Your task to perform on an android device: Open calendar and show me the third week of next month Image 0: 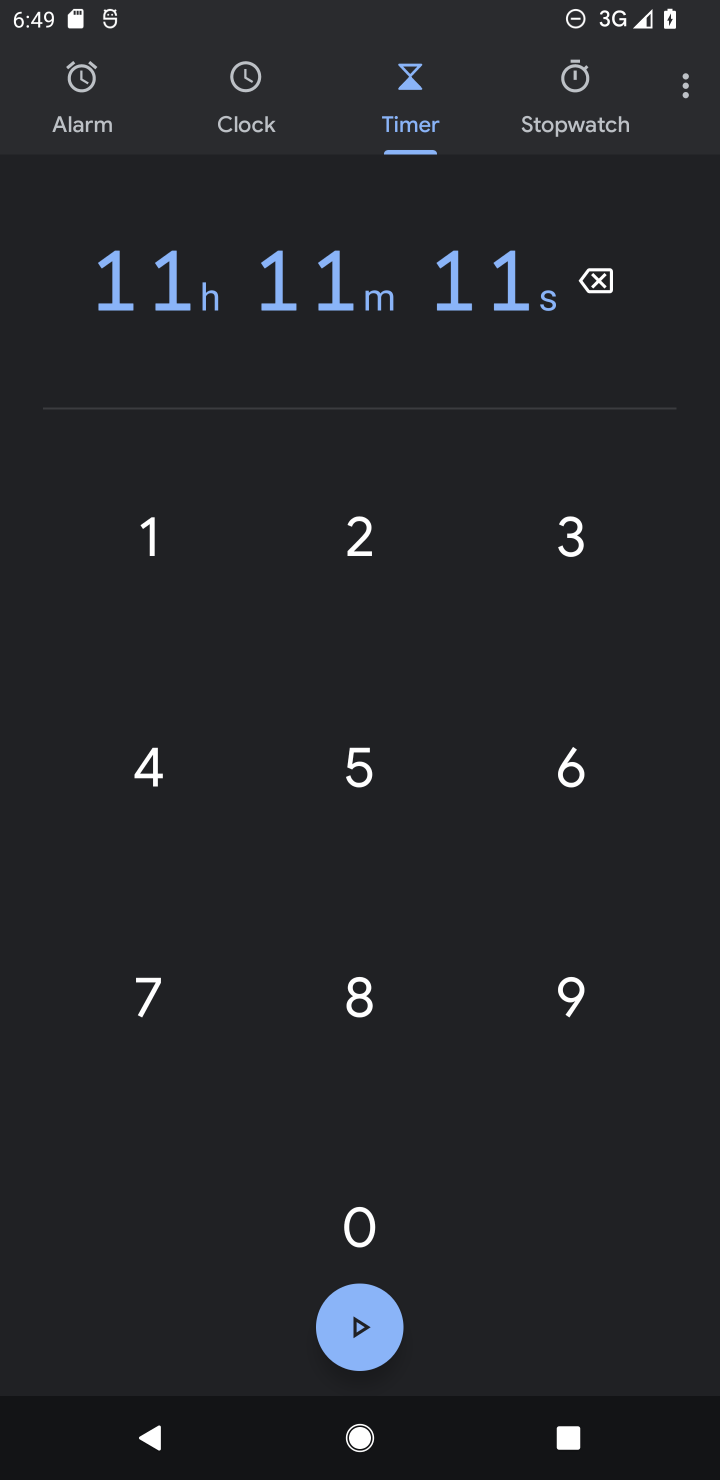
Step 0: press home button
Your task to perform on an android device: Open calendar and show me the third week of next month Image 1: 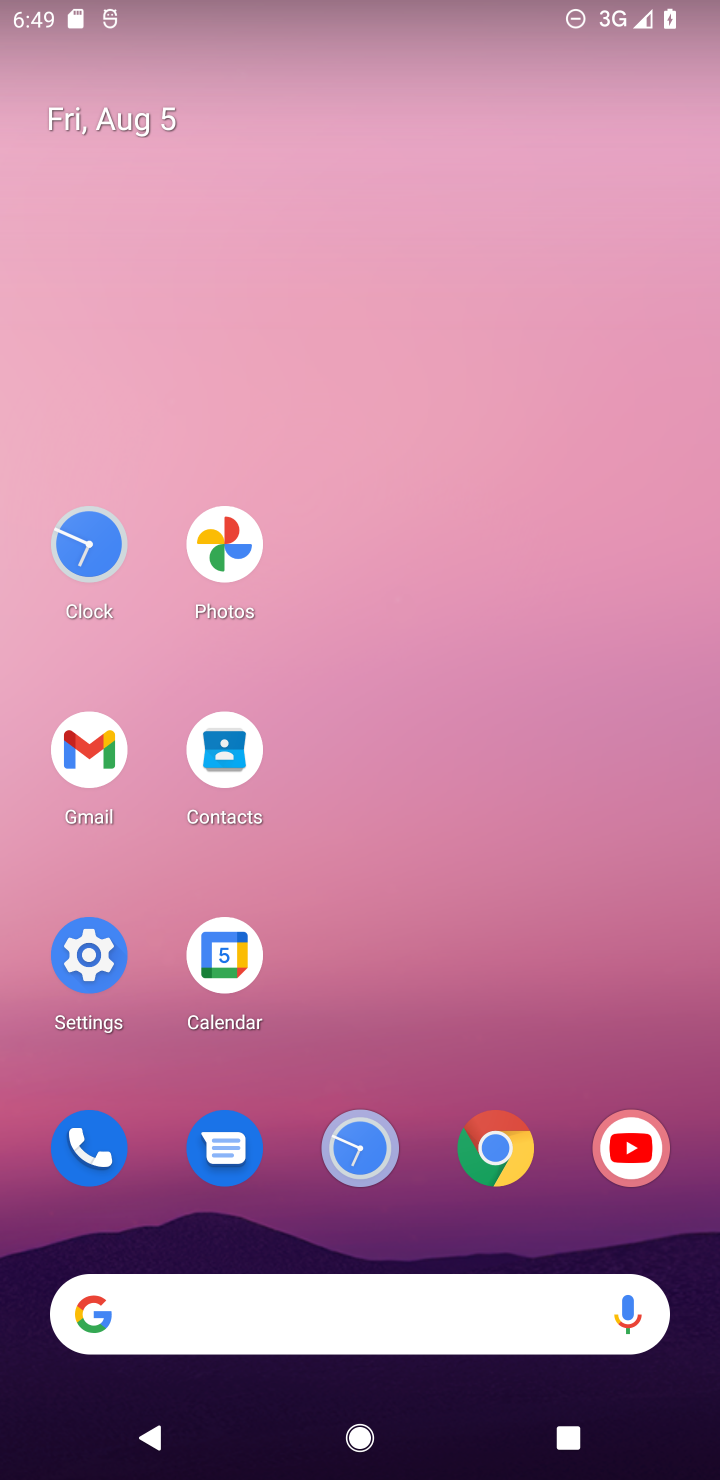
Step 1: click (220, 950)
Your task to perform on an android device: Open calendar and show me the third week of next month Image 2: 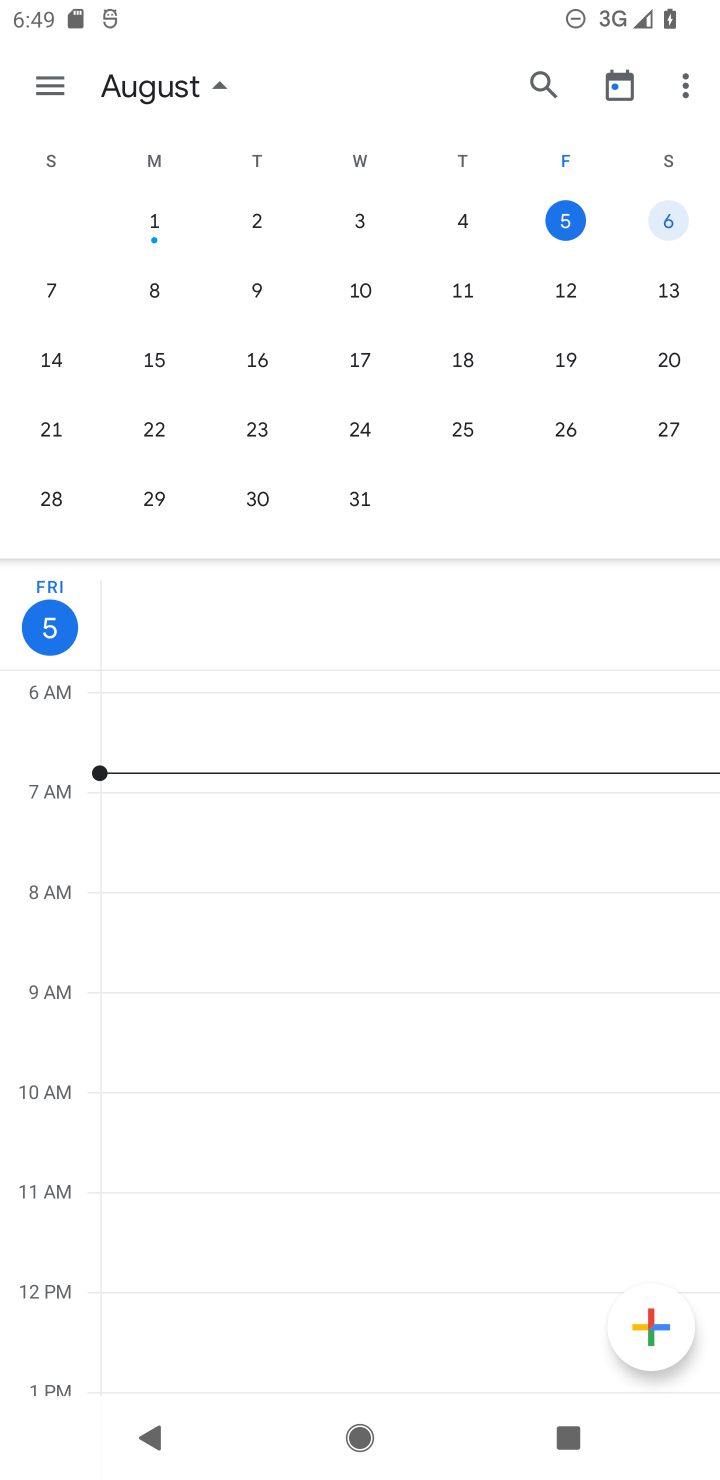
Step 2: drag from (642, 317) to (73, 312)
Your task to perform on an android device: Open calendar and show me the third week of next month Image 3: 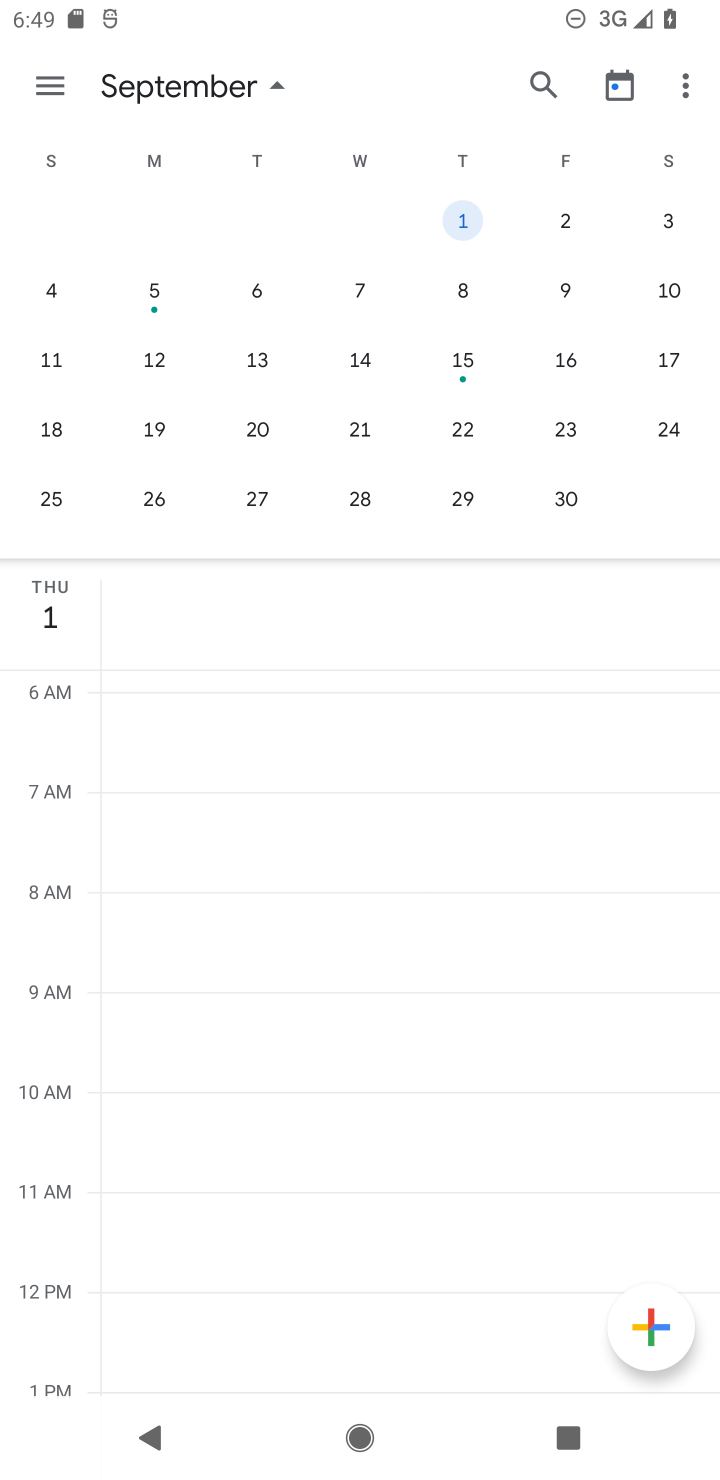
Step 3: click (367, 352)
Your task to perform on an android device: Open calendar and show me the third week of next month Image 4: 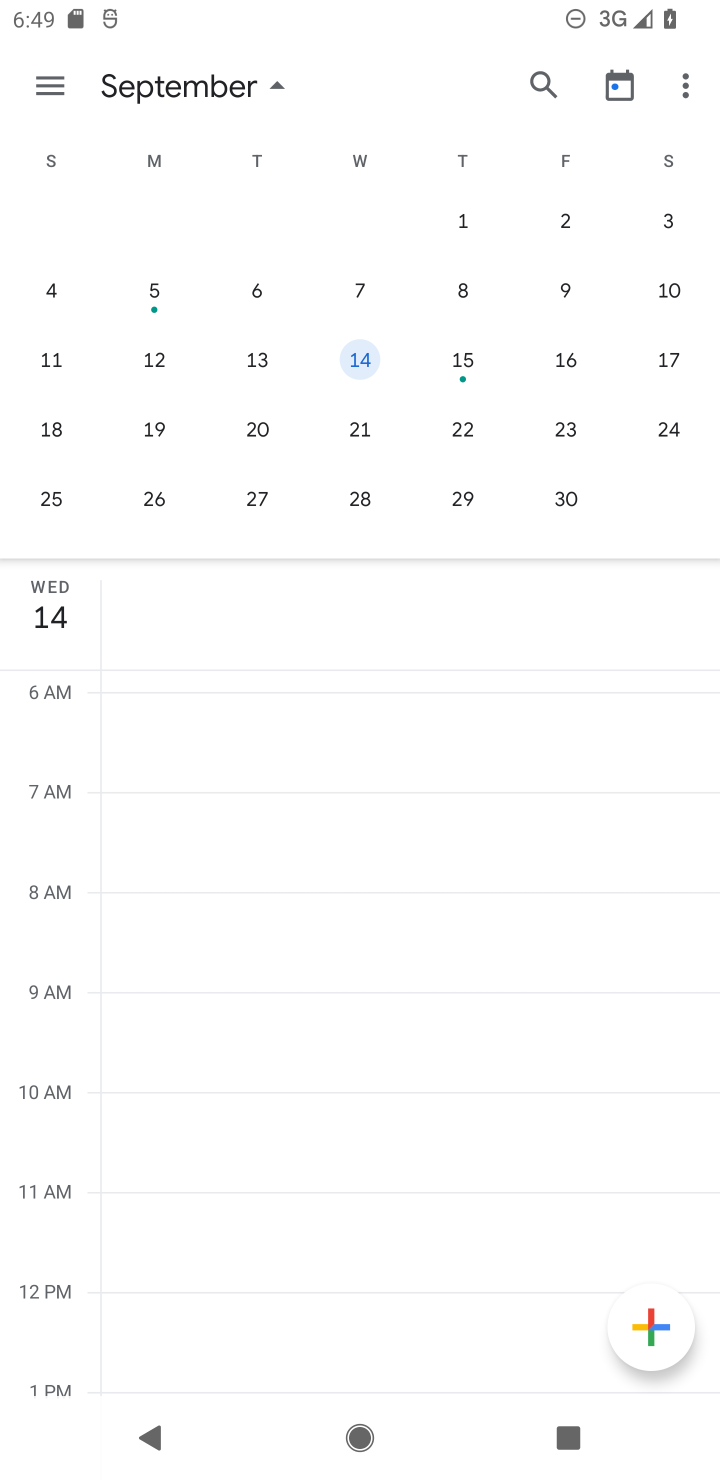
Step 4: click (358, 369)
Your task to perform on an android device: Open calendar and show me the third week of next month Image 5: 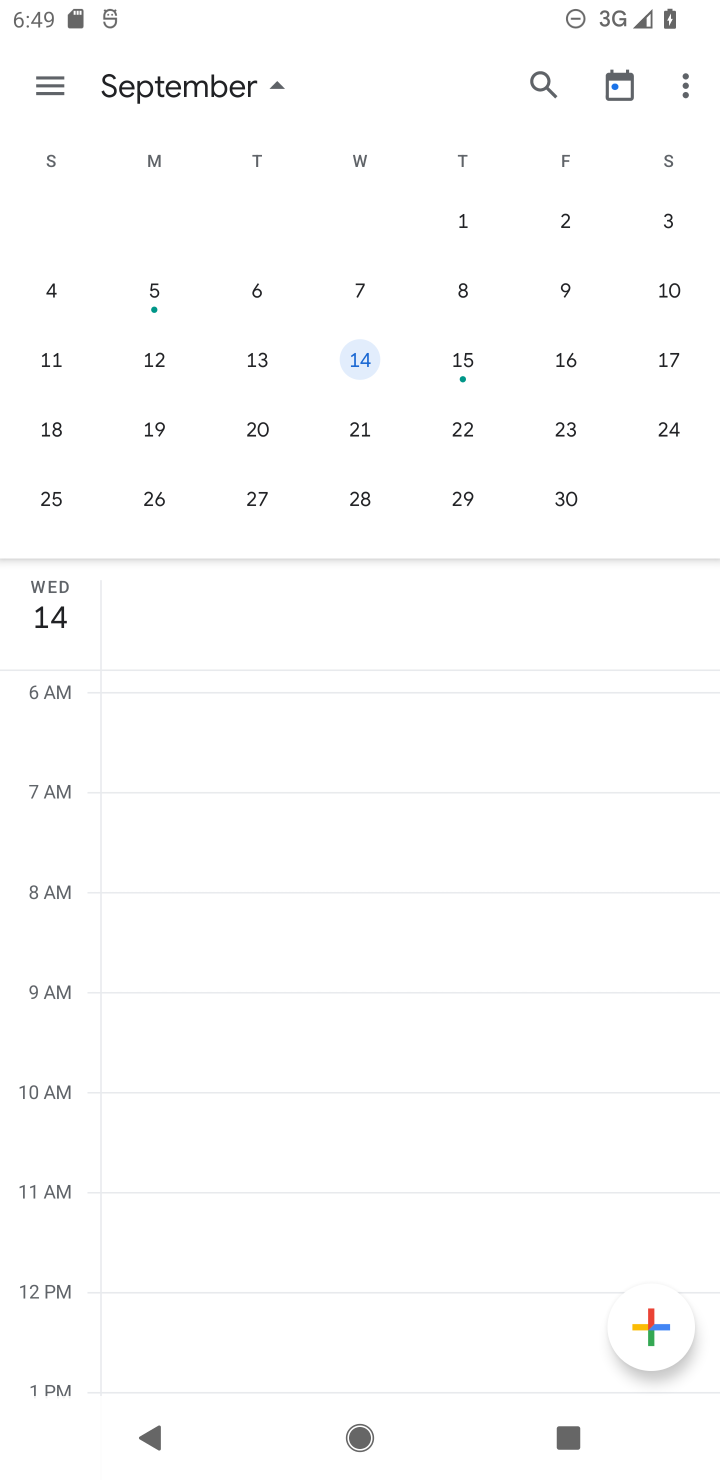
Step 5: click (48, 81)
Your task to perform on an android device: Open calendar and show me the third week of next month Image 6: 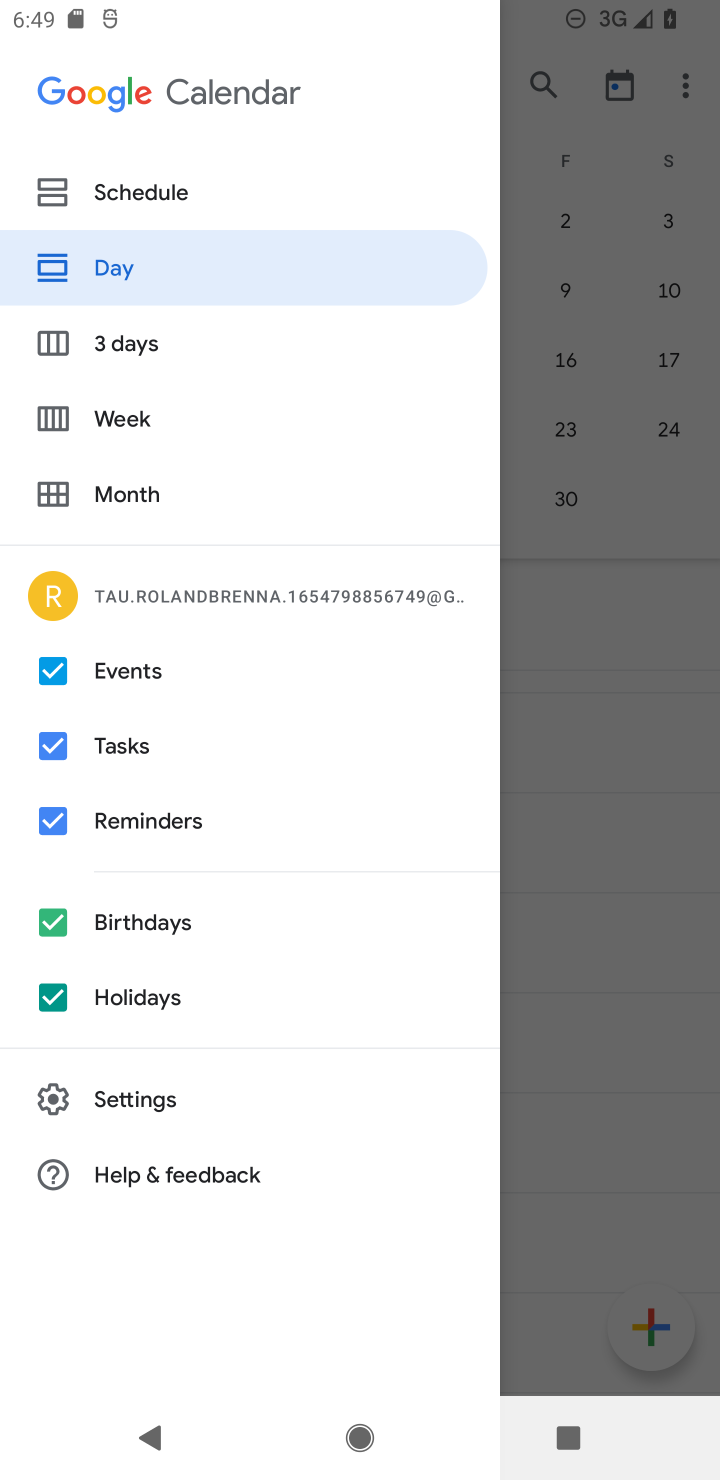
Step 6: click (130, 416)
Your task to perform on an android device: Open calendar and show me the third week of next month Image 7: 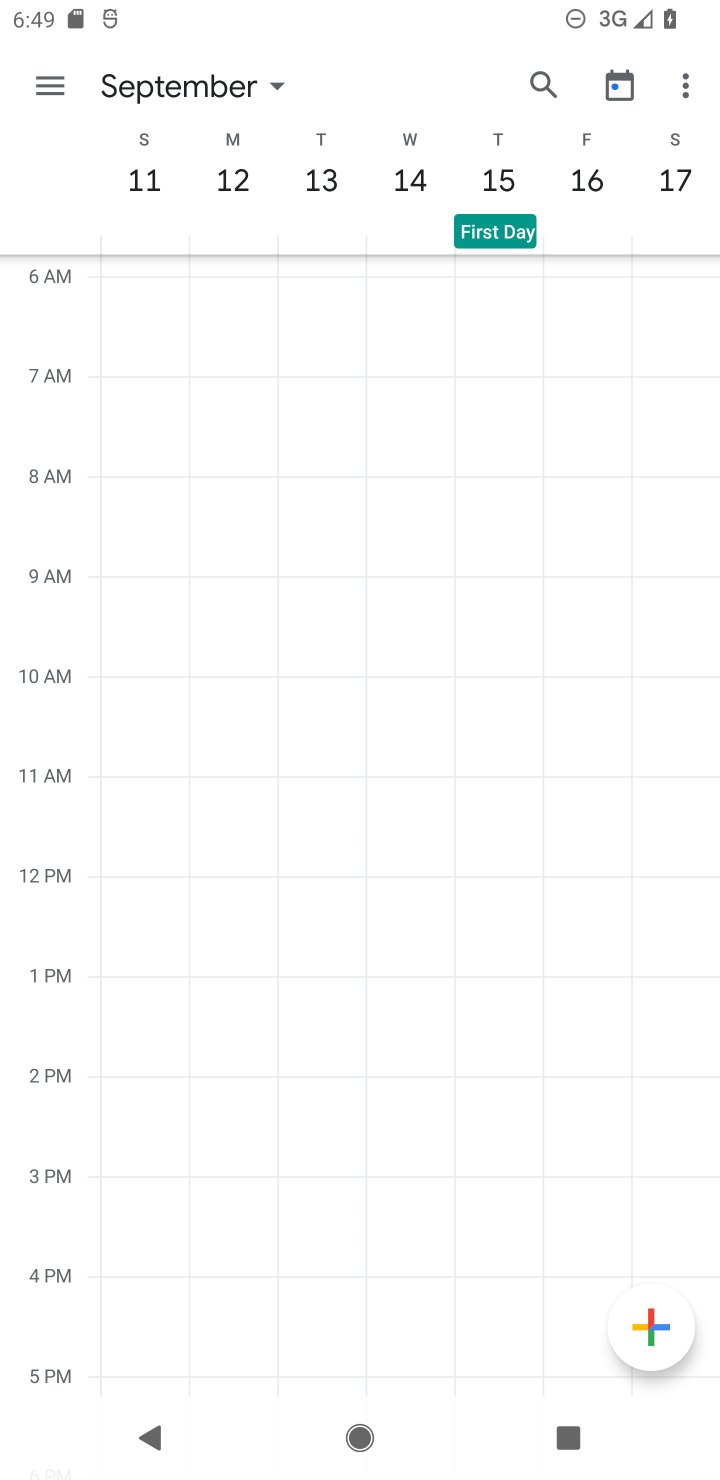
Step 7: task complete